Your task to perform on an android device: Go to Wikipedia Image 0: 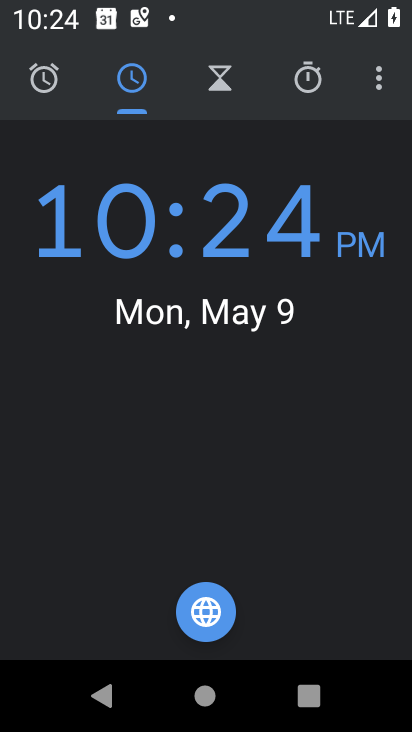
Step 0: press back button
Your task to perform on an android device: Go to Wikipedia Image 1: 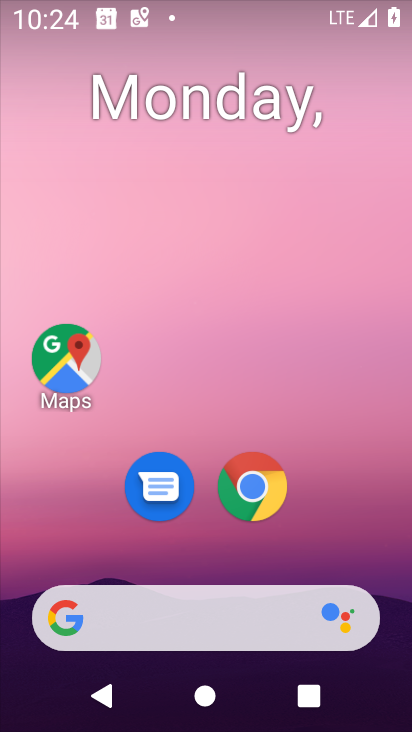
Step 1: drag from (336, 515) to (275, 16)
Your task to perform on an android device: Go to Wikipedia Image 2: 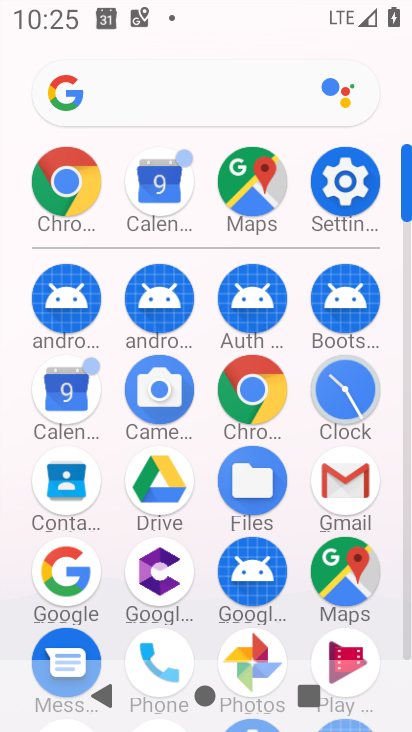
Step 2: click (254, 383)
Your task to perform on an android device: Go to Wikipedia Image 3: 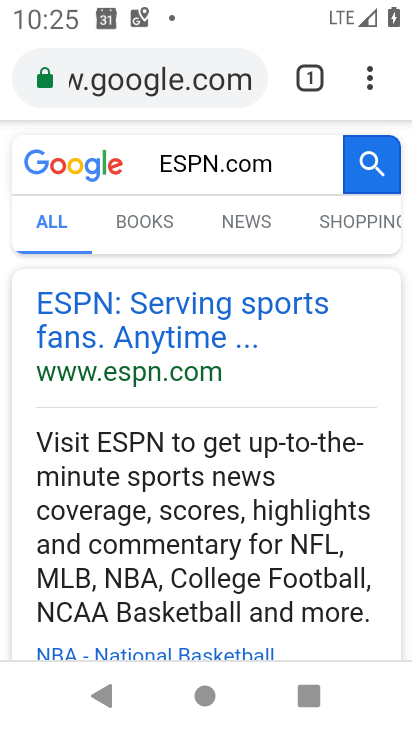
Step 3: click (189, 57)
Your task to perform on an android device: Go to Wikipedia Image 4: 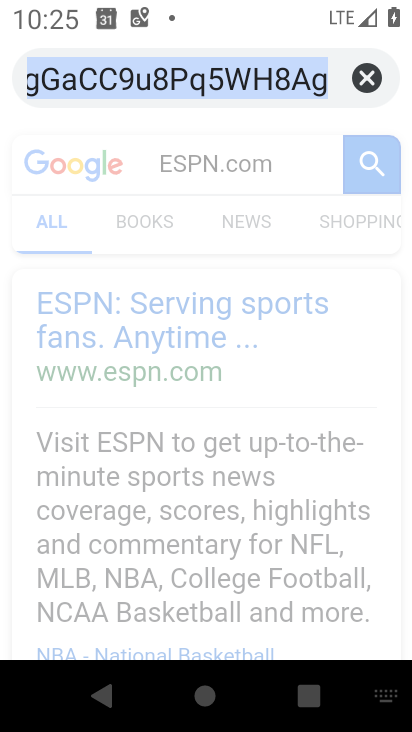
Step 4: click (375, 74)
Your task to perform on an android device: Go to Wikipedia Image 5: 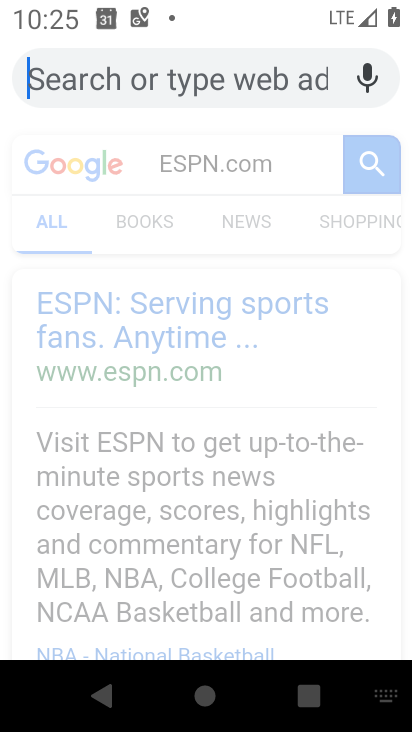
Step 5: type "Wikipedia"
Your task to perform on an android device: Go to Wikipedia Image 6: 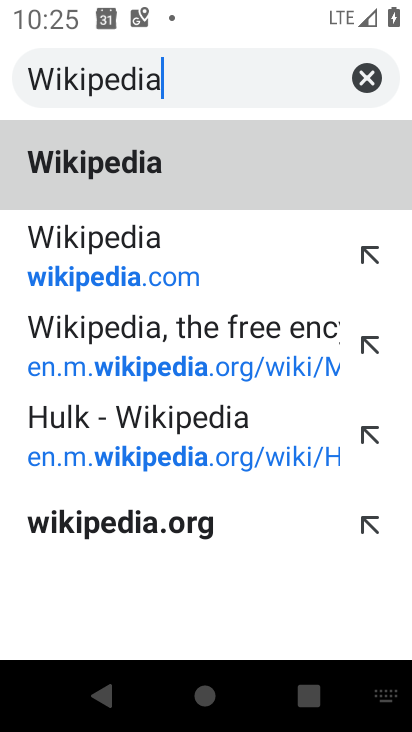
Step 6: type ""
Your task to perform on an android device: Go to Wikipedia Image 7: 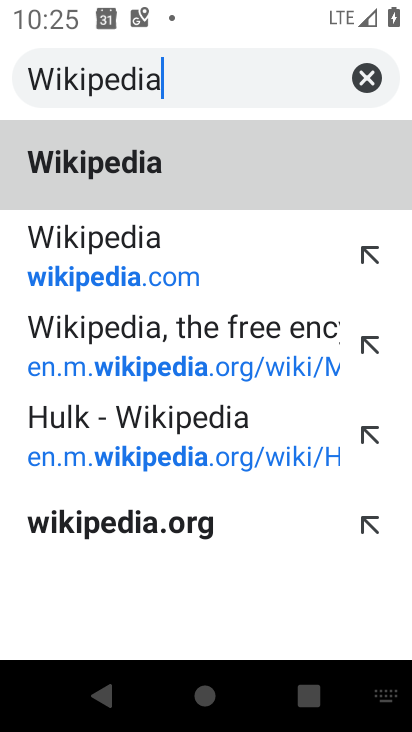
Step 7: click (191, 153)
Your task to perform on an android device: Go to Wikipedia Image 8: 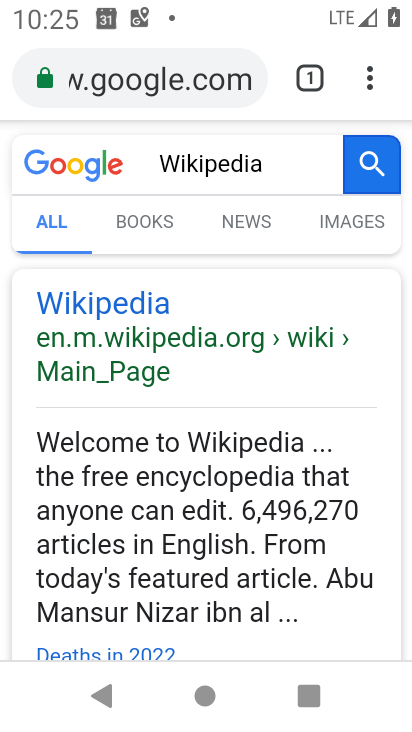
Step 8: click (104, 296)
Your task to perform on an android device: Go to Wikipedia Image 9: 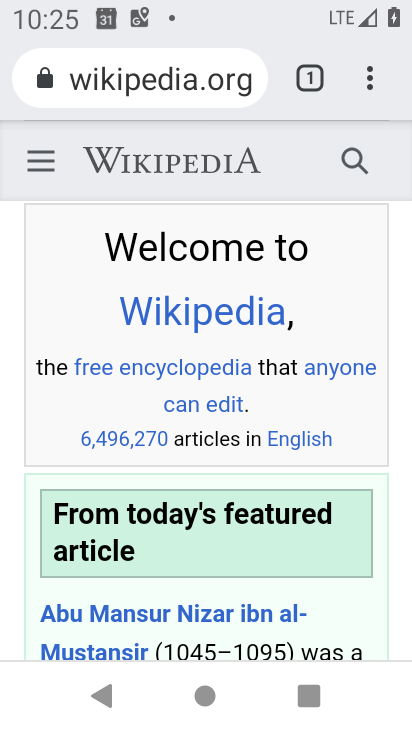
Step 9: task complete